Your task to perform on an android device: What is the news today? Image 0: 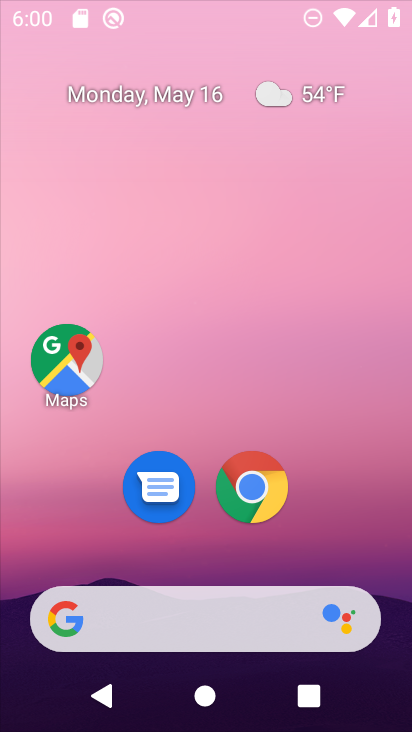
Step 0: click (241, 203)
Your task to perform on an android device: What is the news today? Image 1: 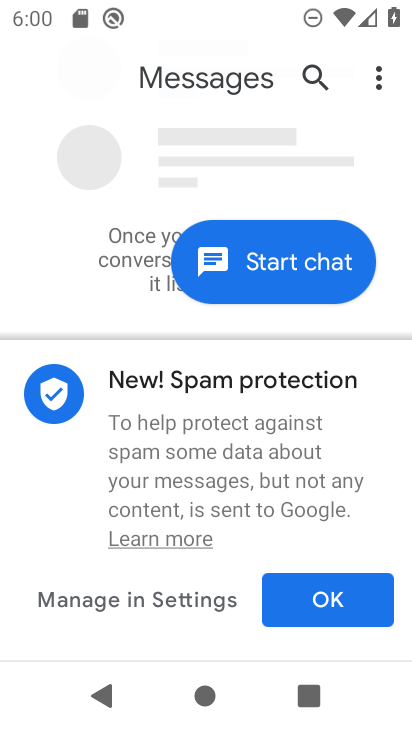
Step 1: press home button
Your task to perform on an android device: What is the news today? Image 2: 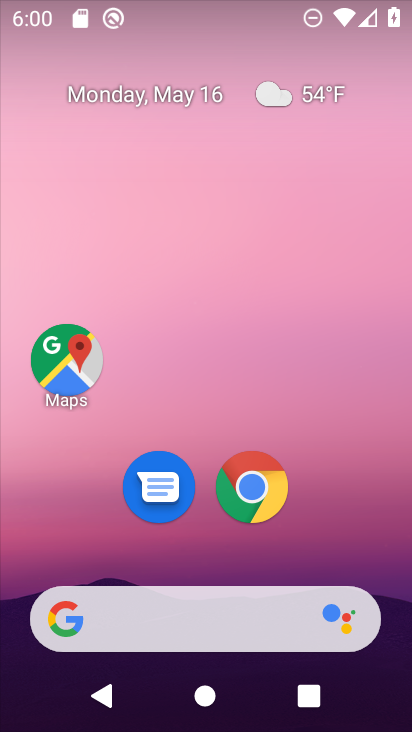
Step 2: click (207, 203)
Your task to perform on an android device: What is the news today? Image 3: 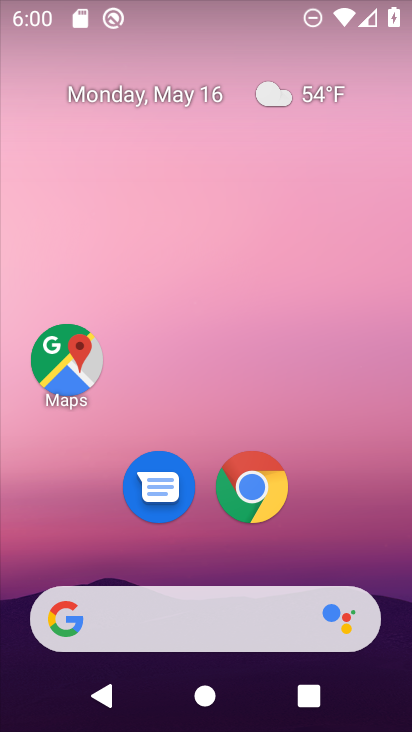
Step 3: drag from (214, 589) to (220, 240)
Your task to perform on an android device: What is the news today? Image 4: 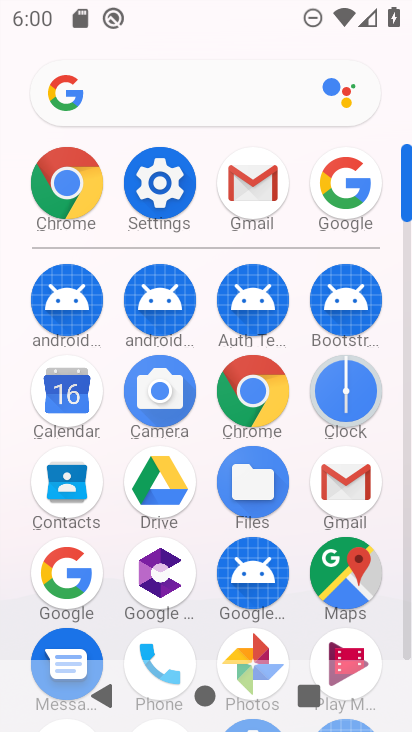
Step 4: click (78, 569)
Your task to perform on an android device: What is the news today? Image 5: 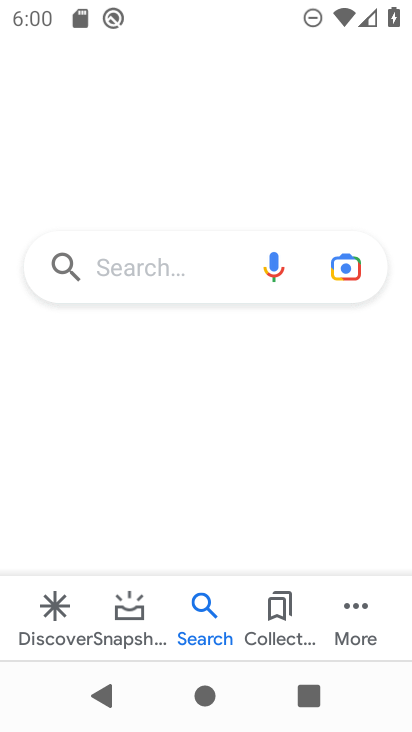
Step 5: click (172, 259)
Your task to perform on an android device: What is the news today? Image 6: 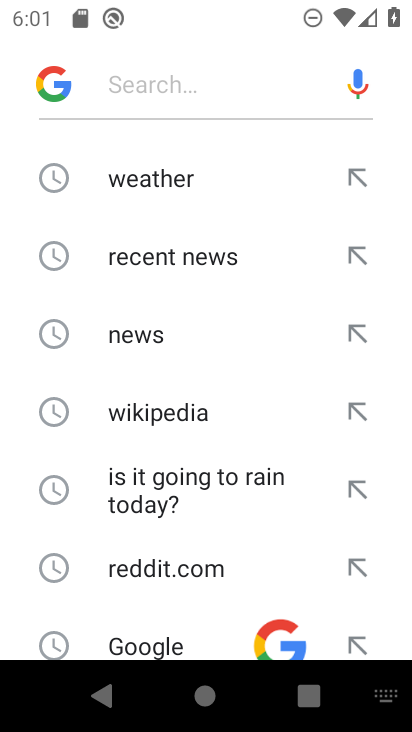
Step 6: drag from (149, 584) to (186, 272)
Your task to perform on an android device: What is the news today? Image 7: 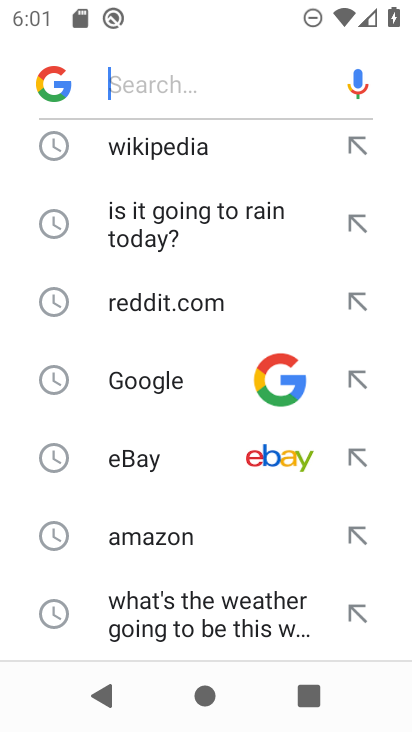
Step 7: drag from (171, 631) to (188, 304)
Your task to perform on an android device: What is the news today? Image 8: 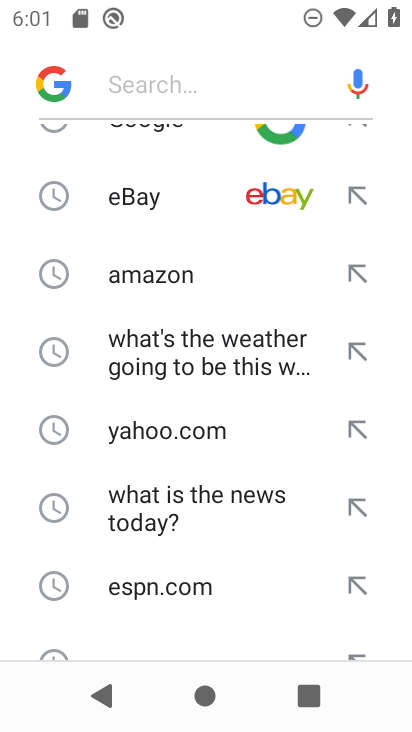
Step 8: click (169, 505)
Your task to perform on an android device: What is the news today? Image 9: 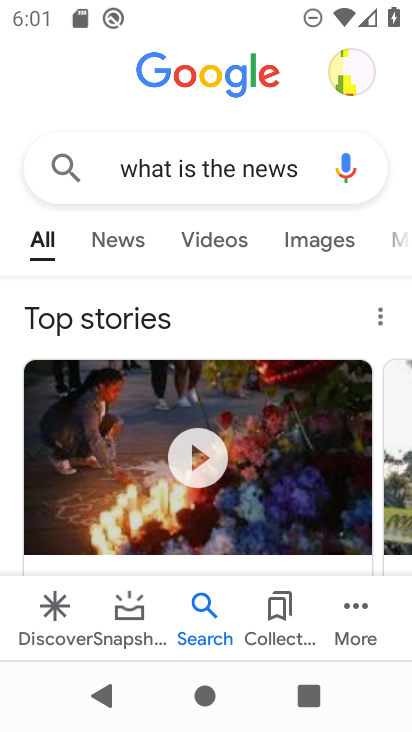
Step 9: task complete